Your task to perform on an android device: visit the assistant section in the google photos Image 0: 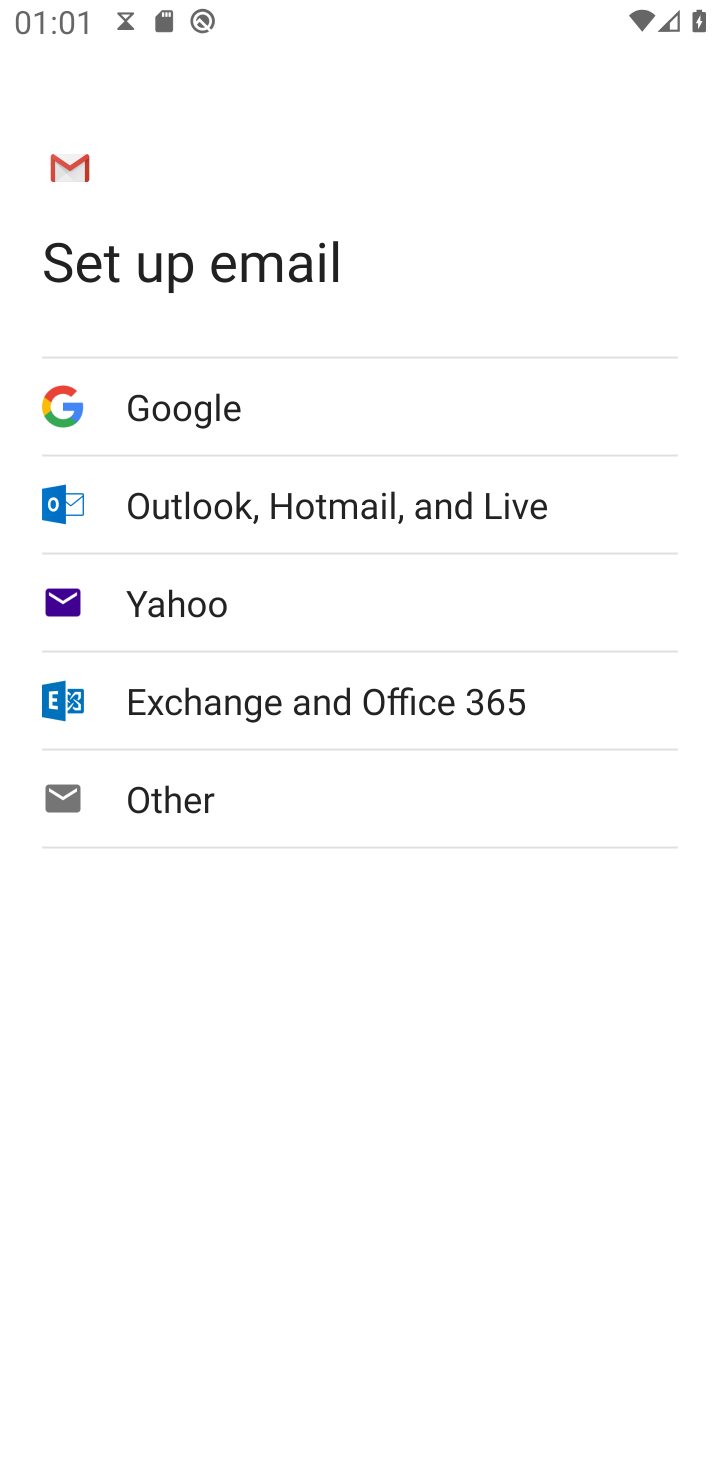
Step 0: drag from (471, 1237) to (642, 452)
Your task to perform on an android device: visit the assistant section in the google photos Image 1: 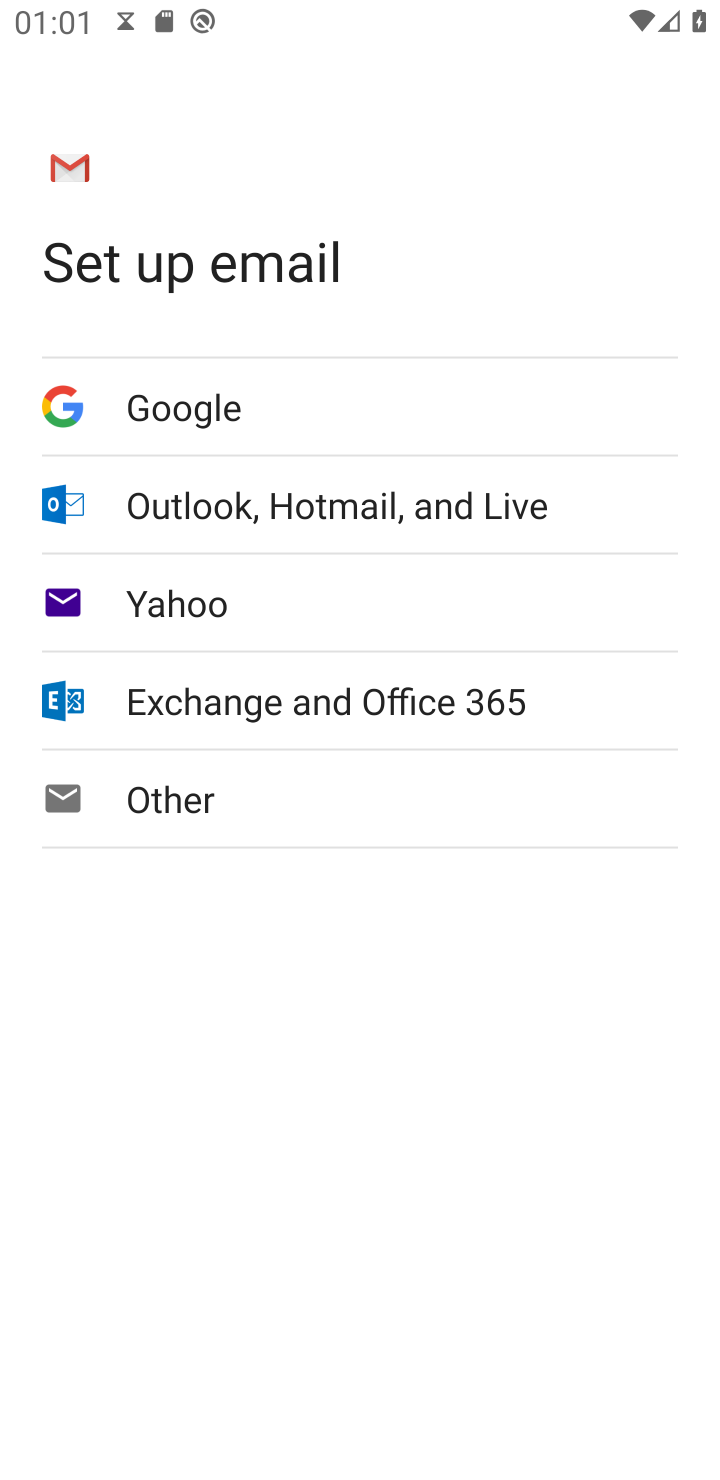
Step 1: press home button
Your task to perform on an android device: visit the assistant section in the google photos Image 2: 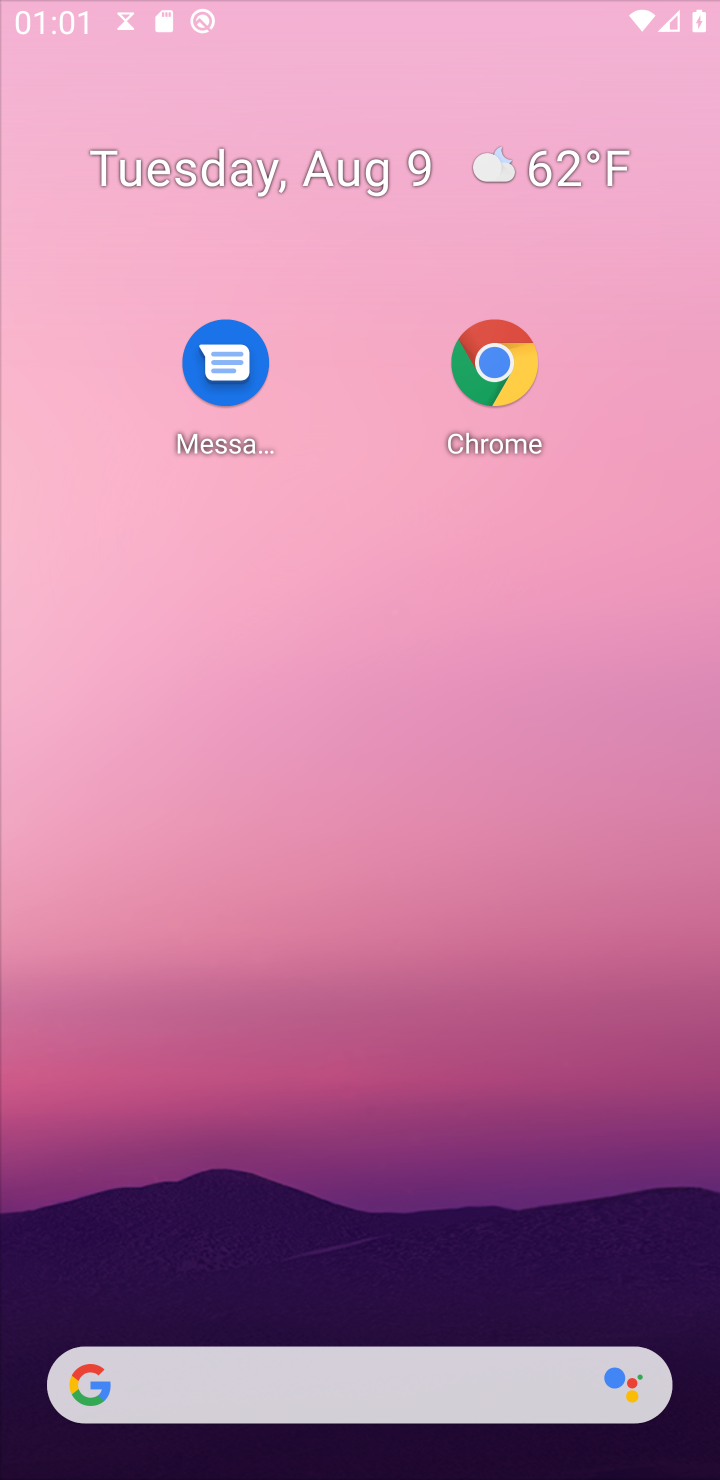
Step 2: drag from (305, 1316) to (569, 93)
Your task to perform on an android device: visit the assistant section in the google photos Image 3: 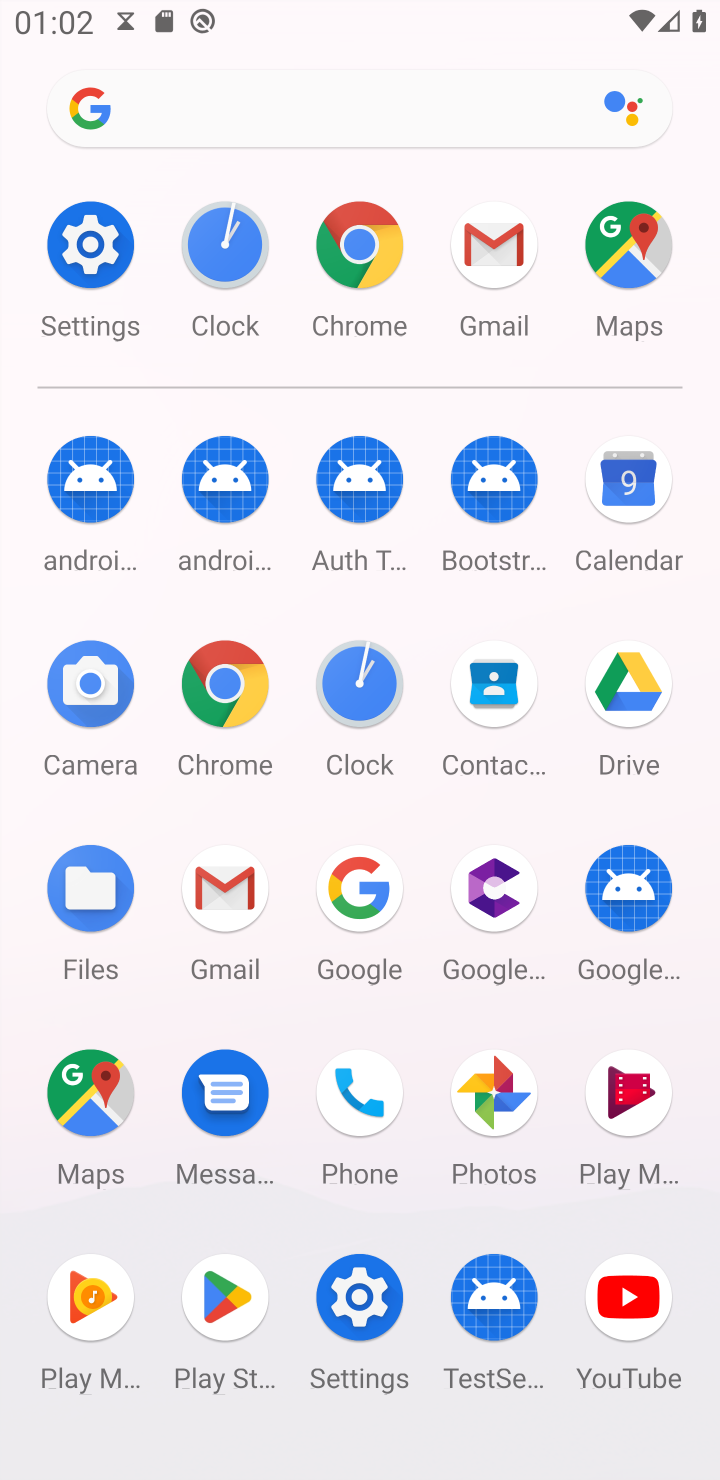
Step 3: click (493, 1088)
Your task to perform on an android device: visit the assistant section in the google photos Image 4: 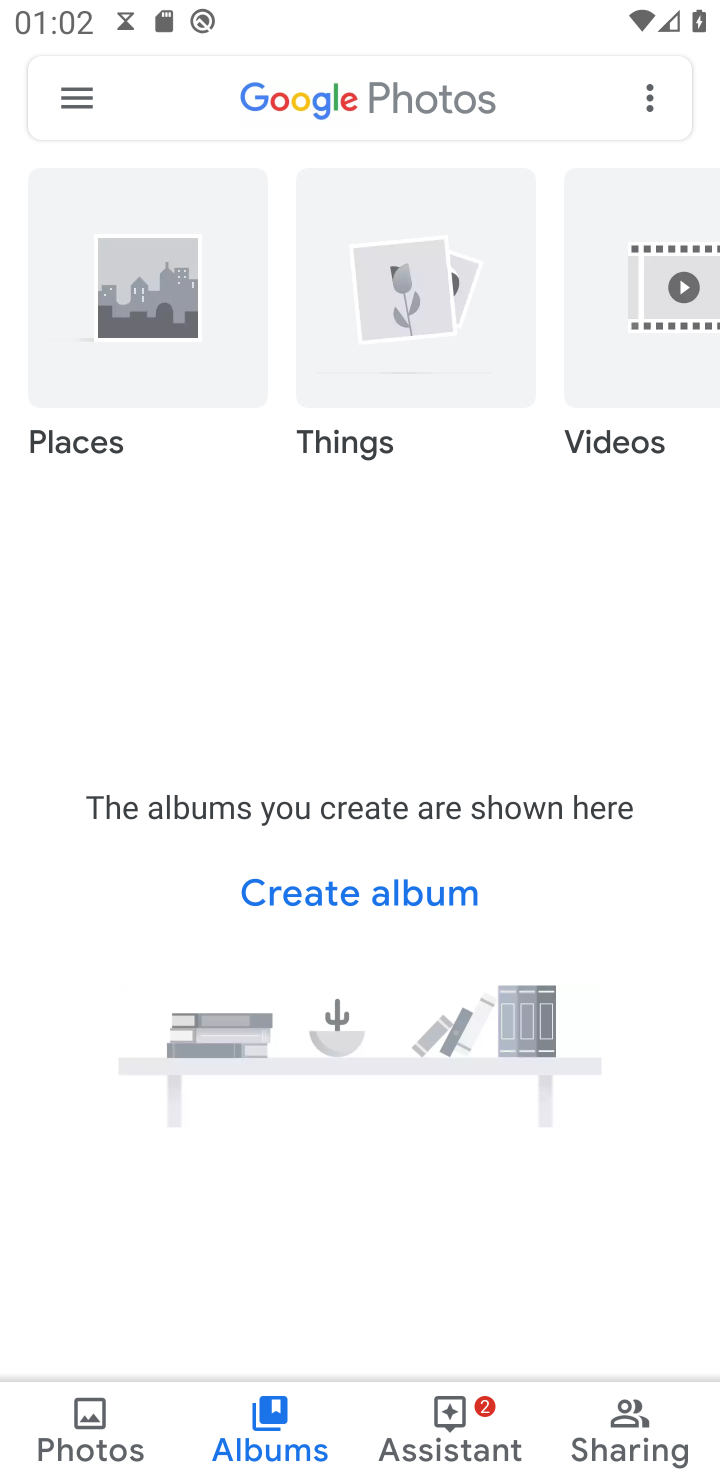
Step 4: click (466, 1439)
Your task to perform on an android device: visit the assistant section in the google photos Image 5: 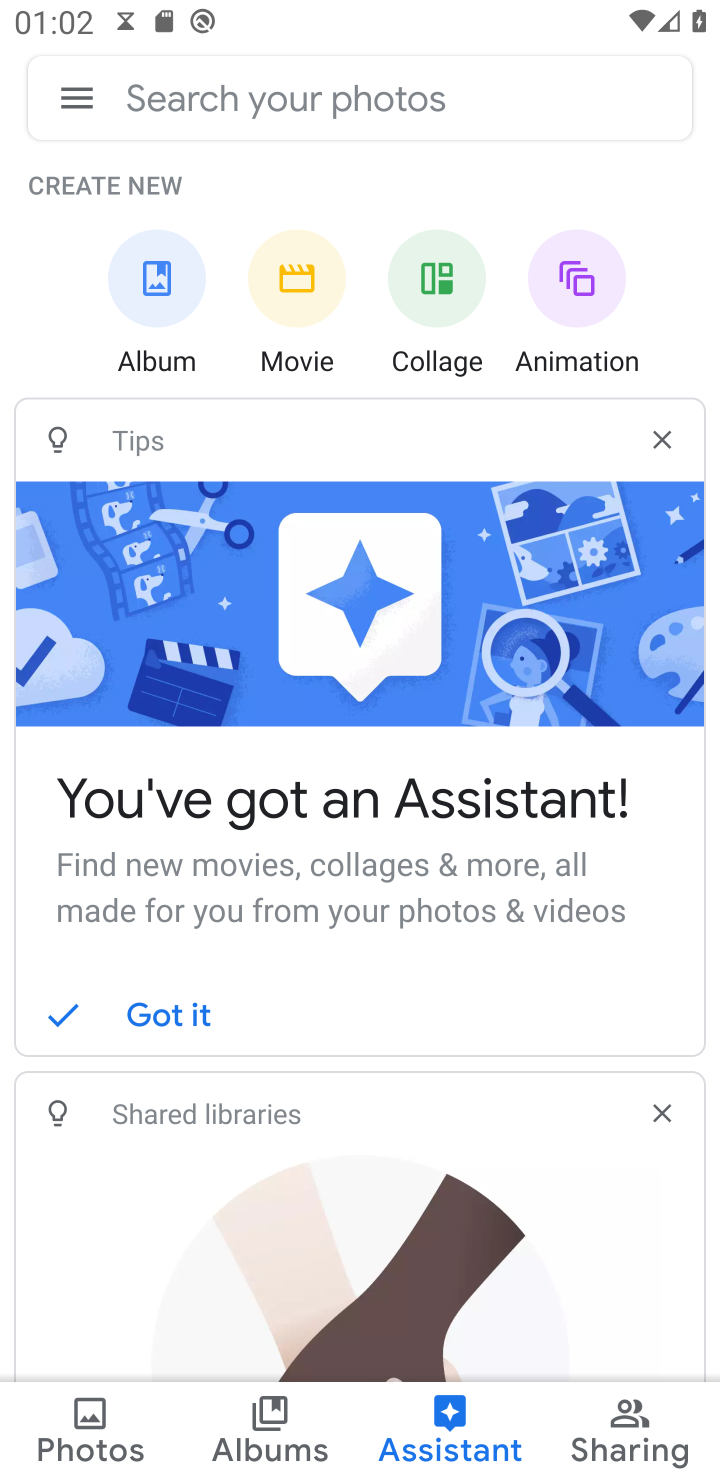
Step 5: task complete